Your task to perform on an android device: open app "eBay: The shopping marketplace" (install if not already installed) and enter user name: "articulated@icloud.com" and password: "excluding" Image 0: 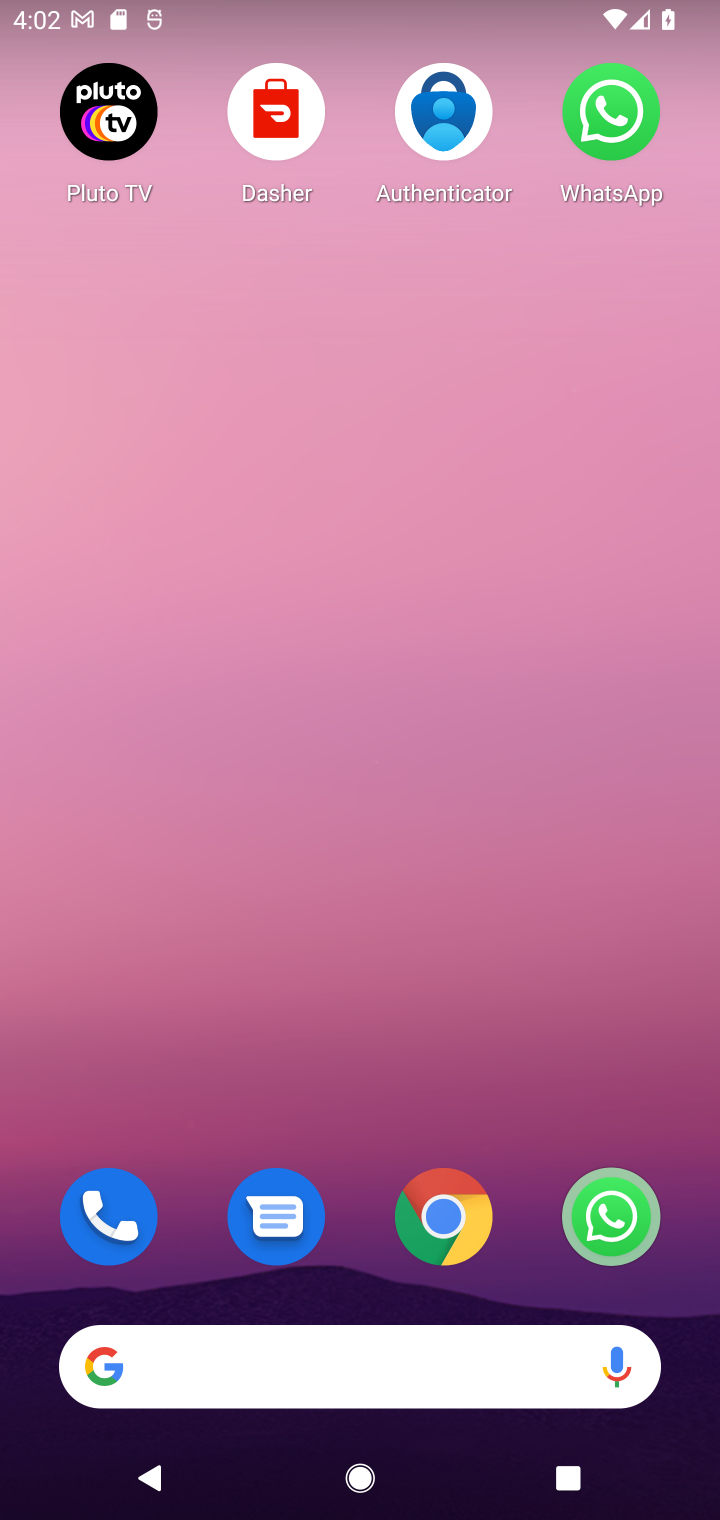
Step 0: drag from (355, 713) to (355, 152)
Your task to perform on an android device: open app "eBay: The shopping marketplace" (install if not already installed) and enter user name: "articulated@icloud.com" and password: "excluding" Image 1: 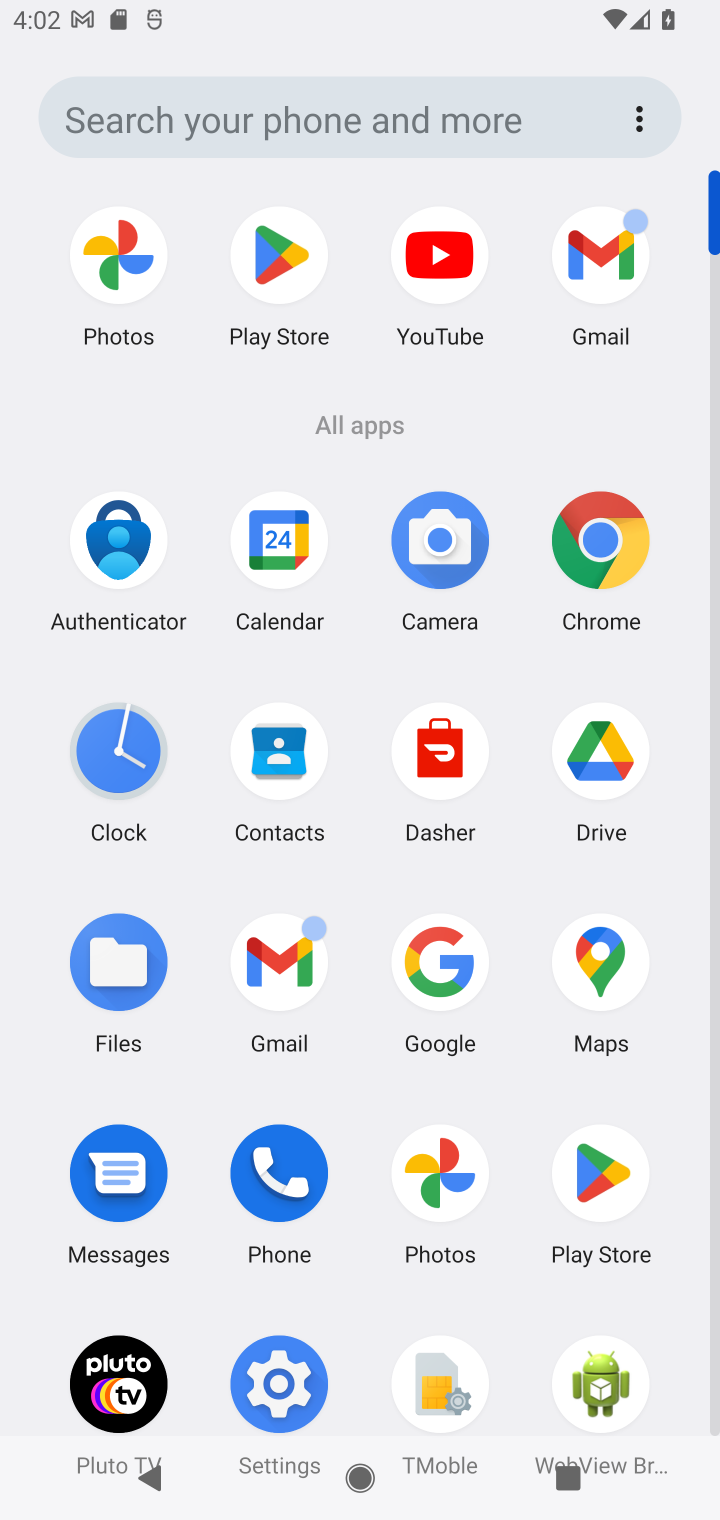
Step 1: click (277, 265)
Your task to perform on an android device: open app "eBay: The shopping marketplace" (install if not already installed) and enter user name: "articulated@icloud.com" and password: "excluding" Image 2: 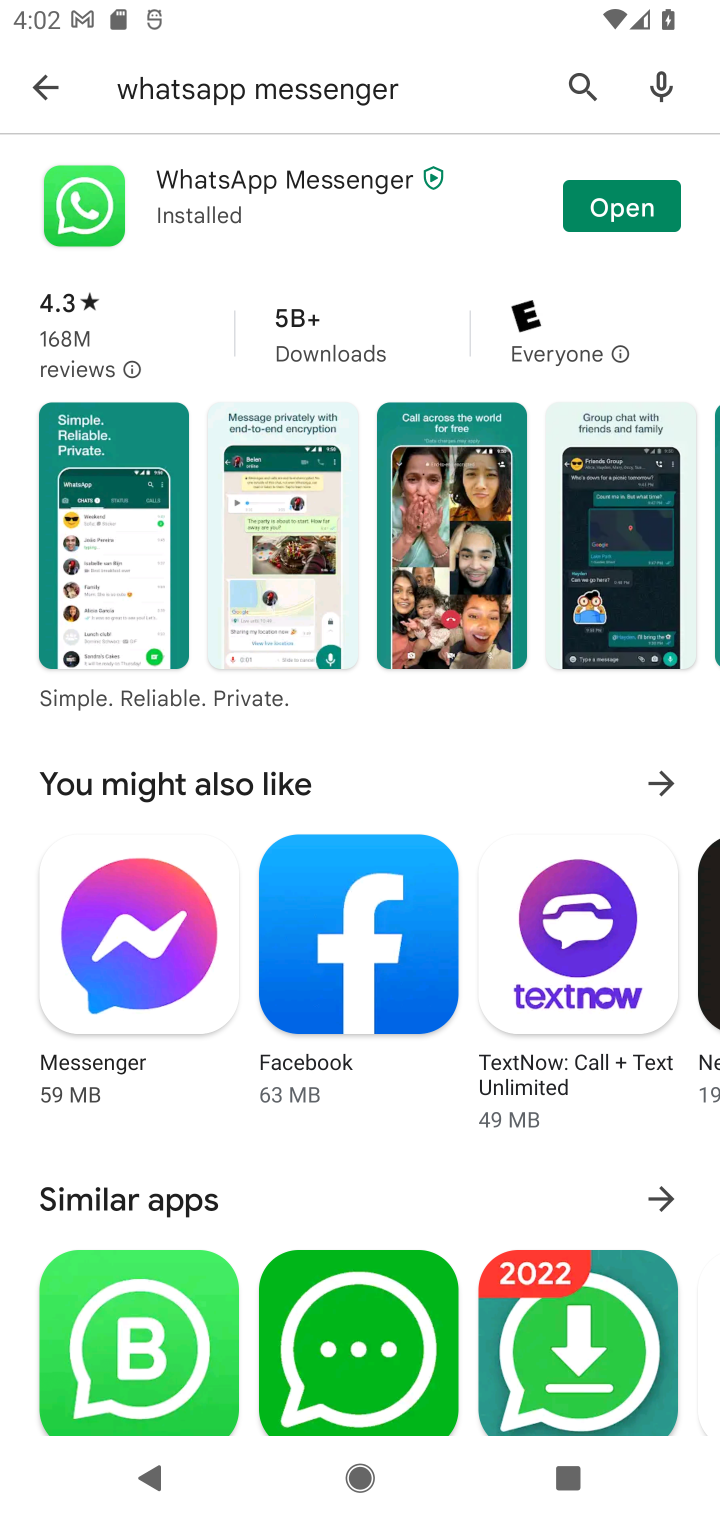
Step 2: click (588, 79)
Your task to perform on an android device: open app "eBay: The shopping marketplace" (install if not already installed) and enter user name: "articulated@icloud.com" and password: "excluding" Image 3: 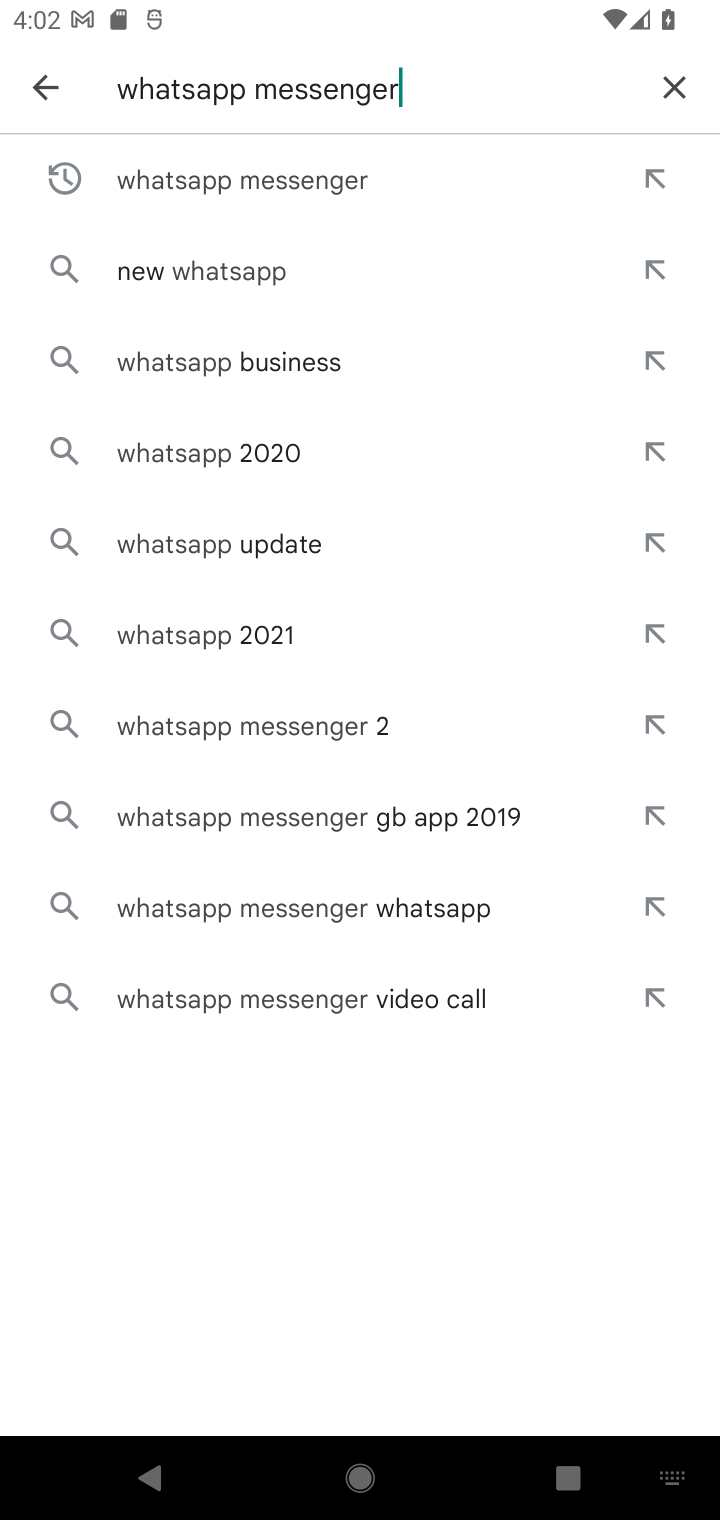
Step 3: click (657, 87)
Your task to perform on an android device: open app "eBay: The shopping marketplace" (install if not already installed) and enter user name: "articulated@icloud.com" and password: "excluding" Image 4: 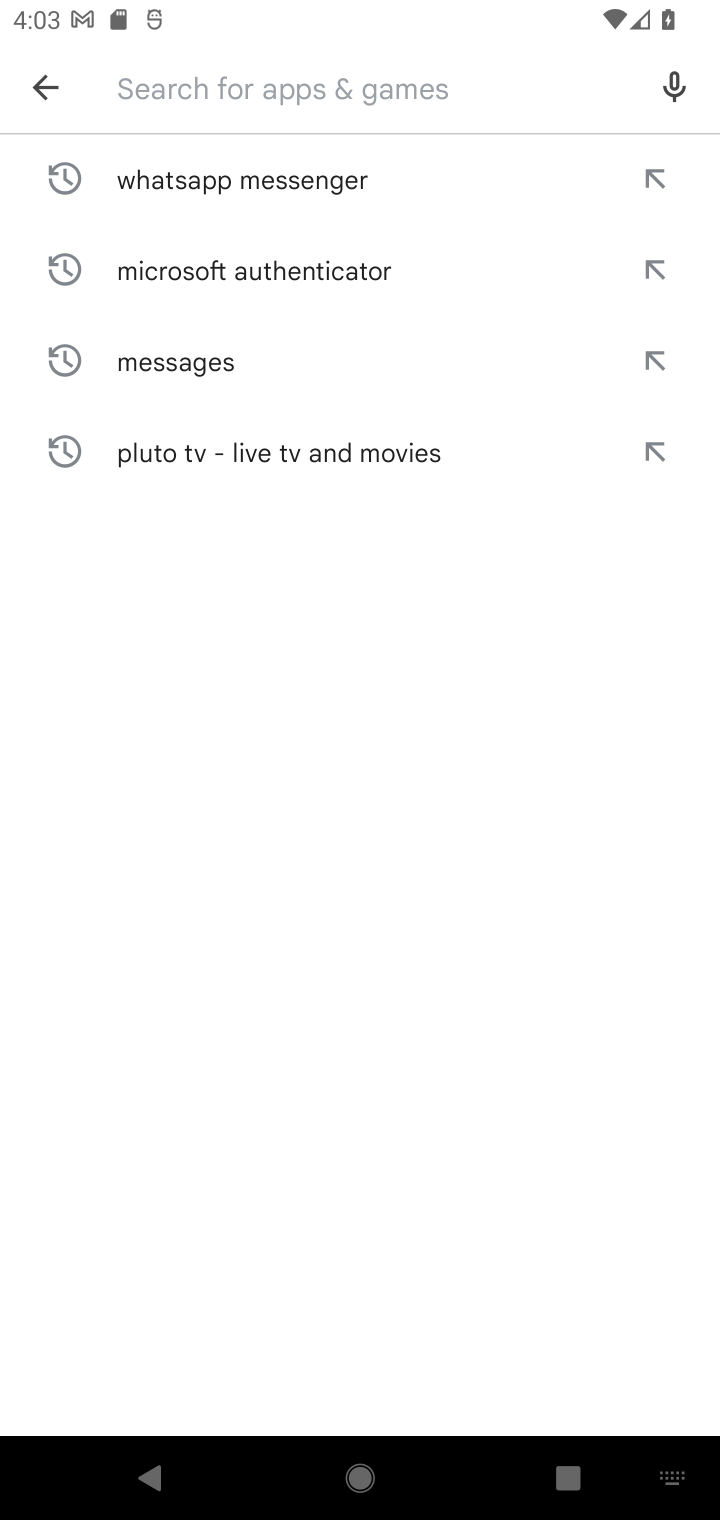
Step 4: click (218, 189)
Your task to perform on an android device: open app "eBay: The shopping marketplace" (install if not already installed) and enter user name: "articulated@icloud.com" and password: "excluding" Image 5: 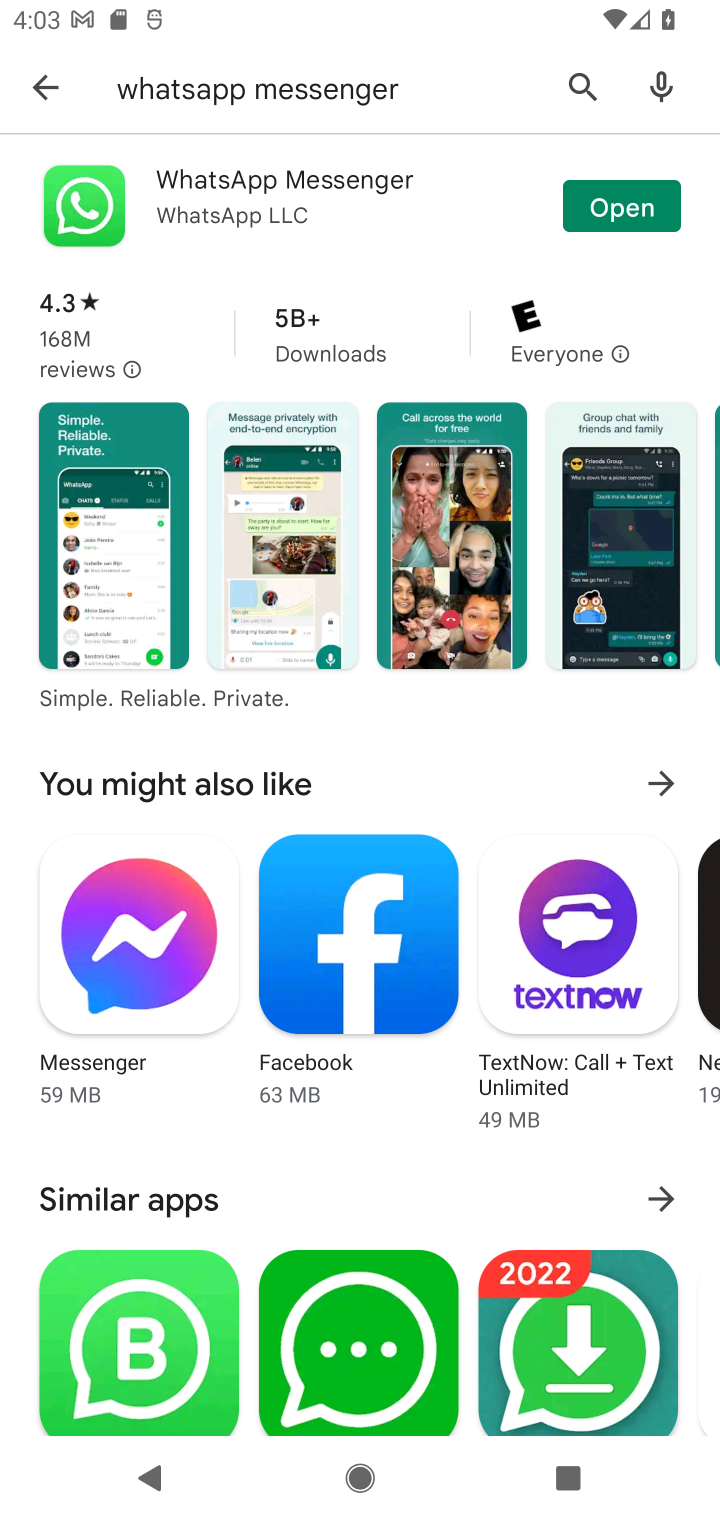
Step 5: click (593, 79)
Your task to perform on an android device: open app "eBay: The shopping marketplace" (install if not already installed) and enter user name: "articulated@icloud.com" and password: "excluding" Image 6: 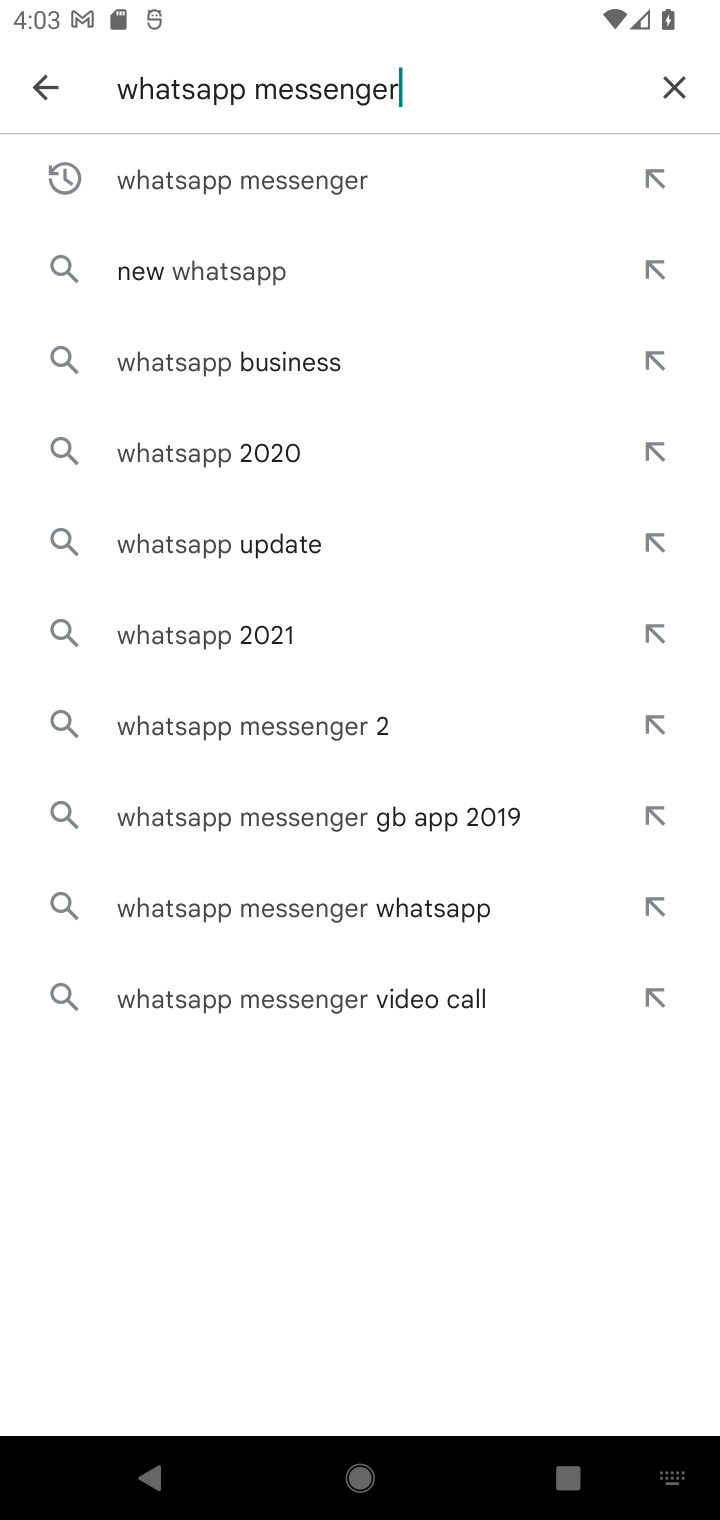
Step 6: click (666, 87)
Your task to perform on an android device: open app "eBay: The shopping marketplace" (install if not already installed) and enter user name: "articulated@icloud.com" and password: "excluding" Image 7: 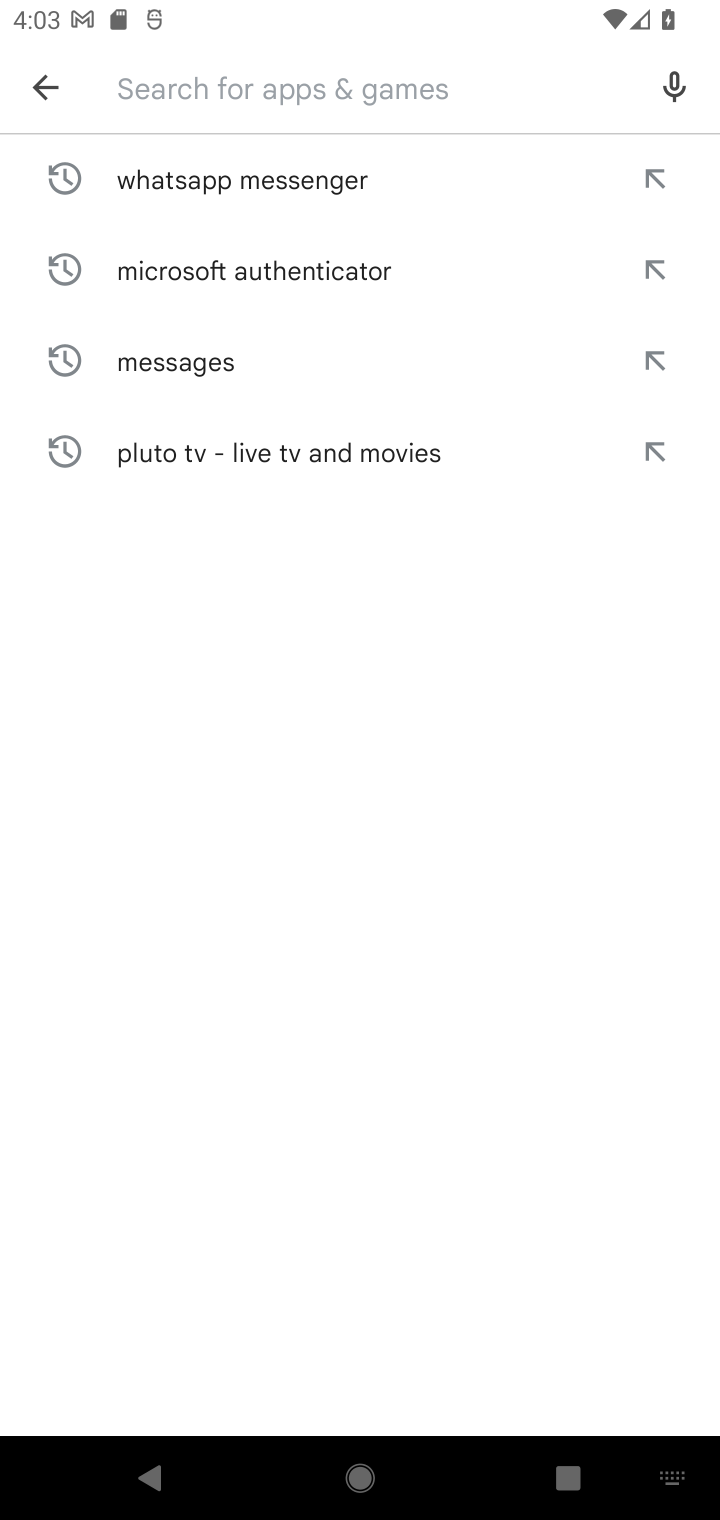
Step 7: type "eBay: The shopping marketplace"
Your task to perform on an android device: open app "eBay: The shopping marketplace" (install if not already installed) and enter user name: "articulated@icloud.com" and password: "excluding" Image 8: 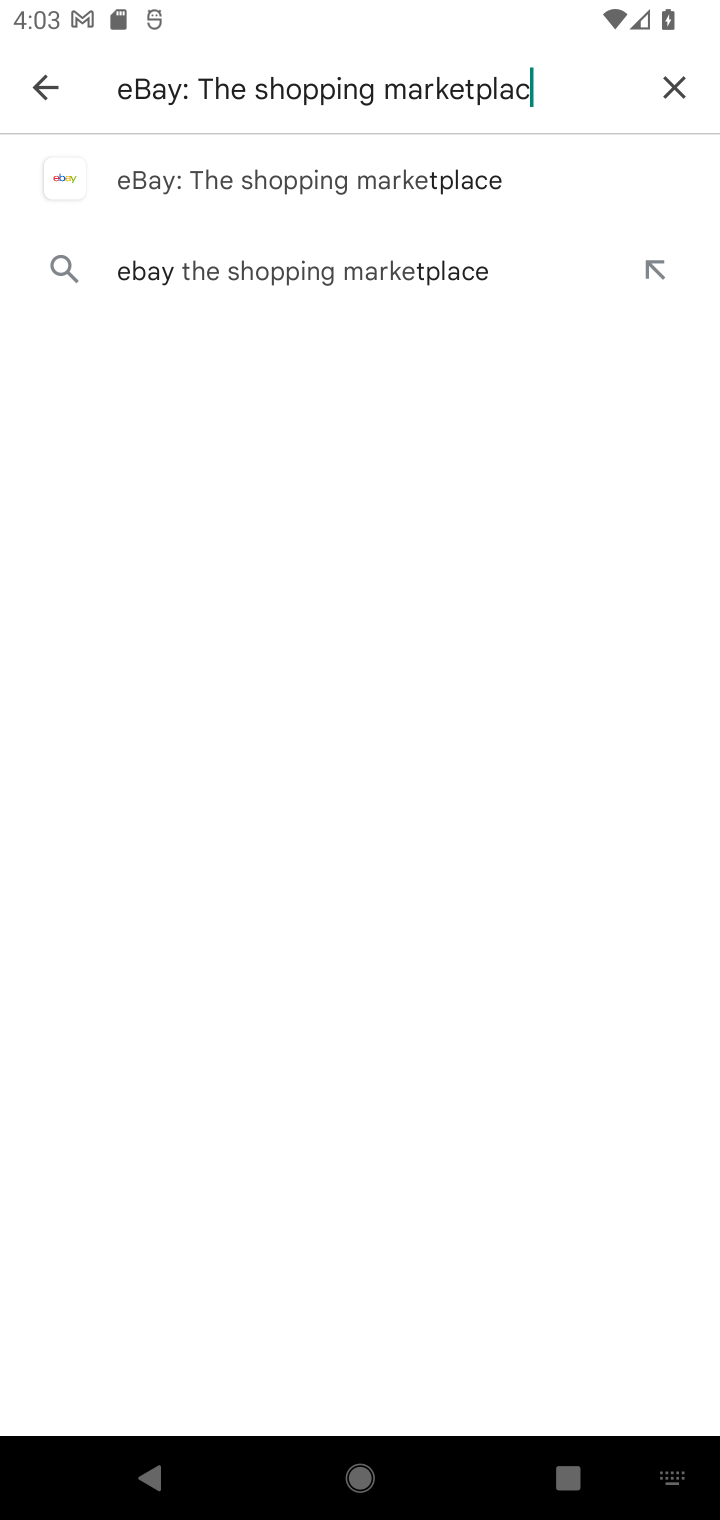
Step 8: type ""
Your task to perform on an android device: open app "eBay: The shopping marketplace" (install if not already installed) and enter user name: "articulated@icloud.com" and password: "excluding" Image 9: 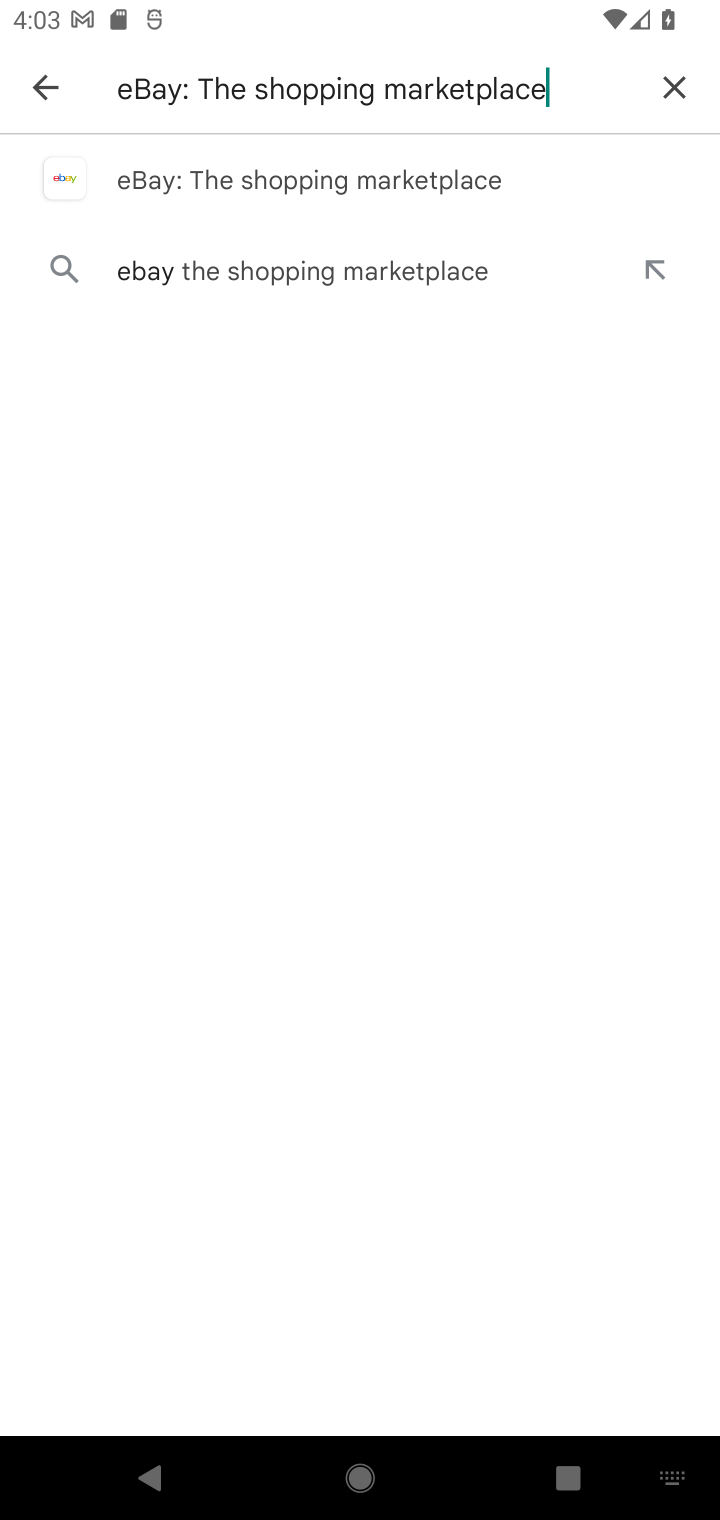
Step 9: click (224, 193)
Your task to perform on an android device: open app "eBay: The shopping marketplace" (install if not already installed) and enter user name: "articulated@icloud.com" and password: "excluding" Image 10: 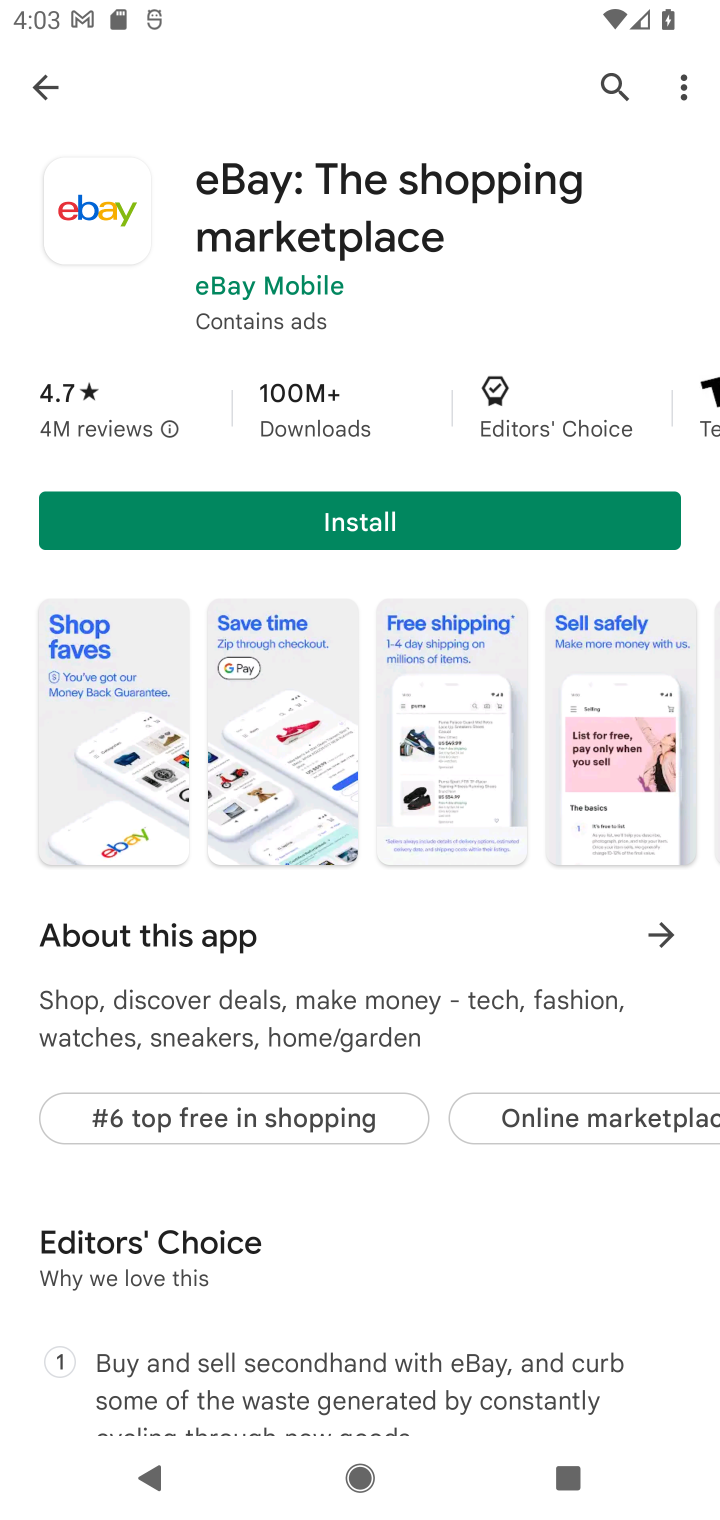
Step 10: click (299, 517)
Your task to perform on an android device: open app "eBay: The shopping marketplace" (install if not already installed) and enter user name: "articulated@icloud.com" and password: "excluding" Image 11: 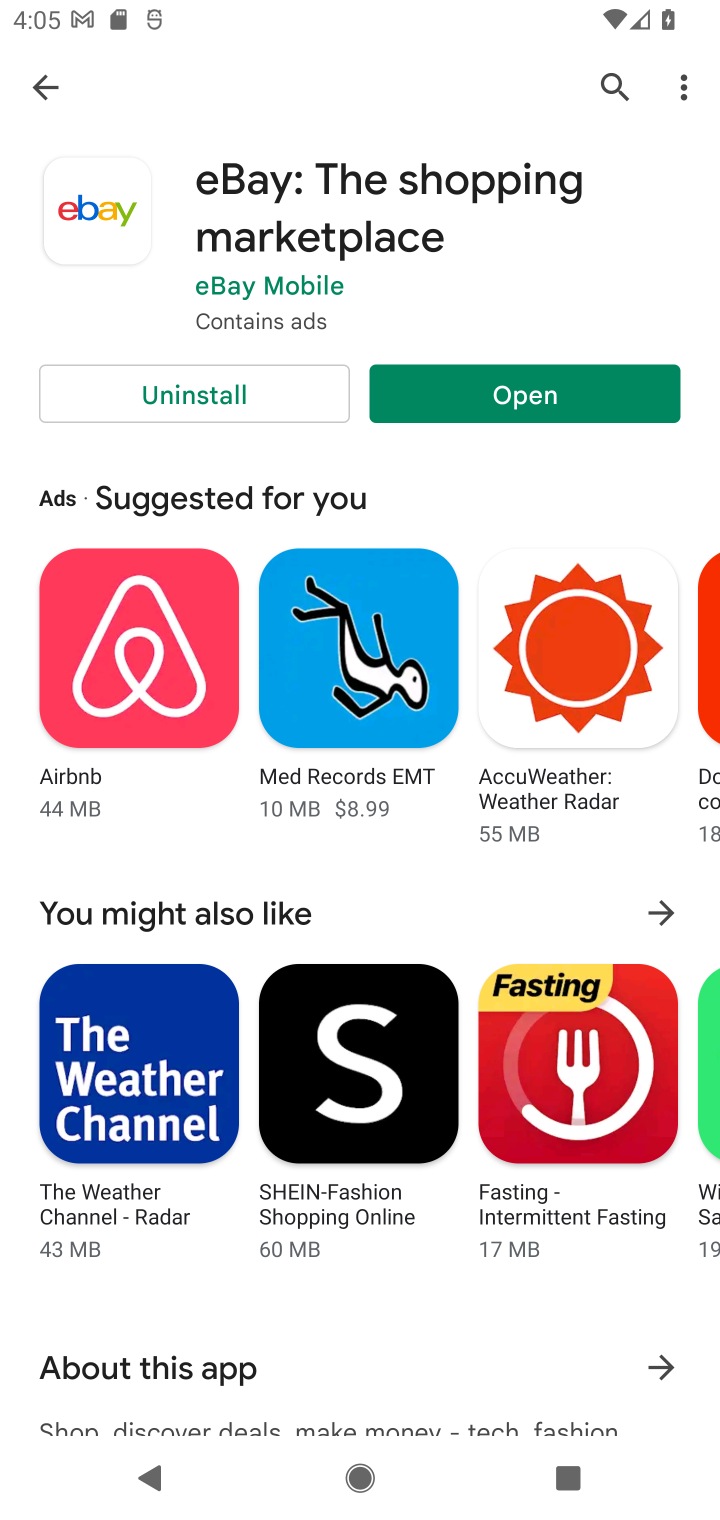
Step 11: click (506, 394)
Your task to perform on an android device: open app "eBay: The shopping marketplace" (install if not already installed) and enter user name: "articulated@icloud.com" and password: "excluding" Image 12: 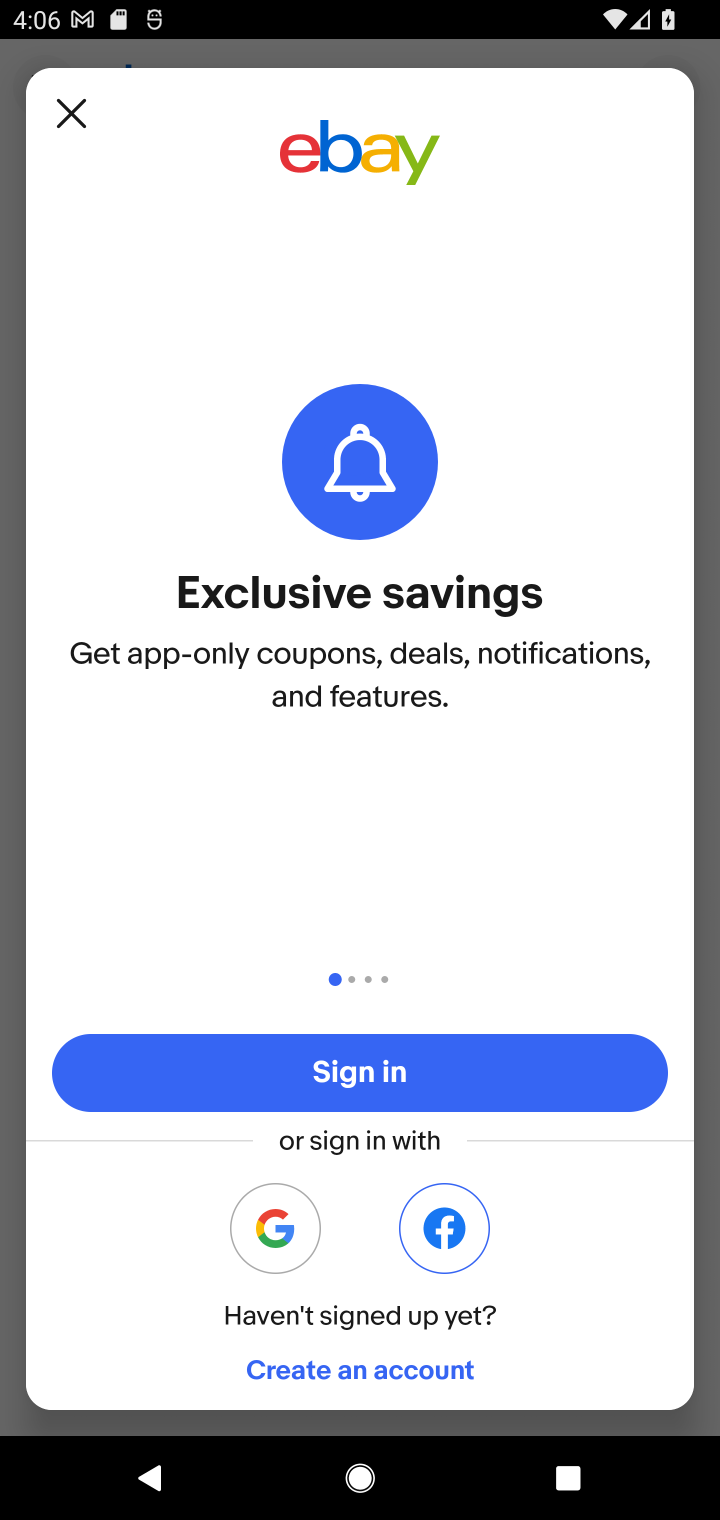
Step 12: task complete